Your task to perform on an android device: read, delete, or share a saved page in the chrome app Image 0: 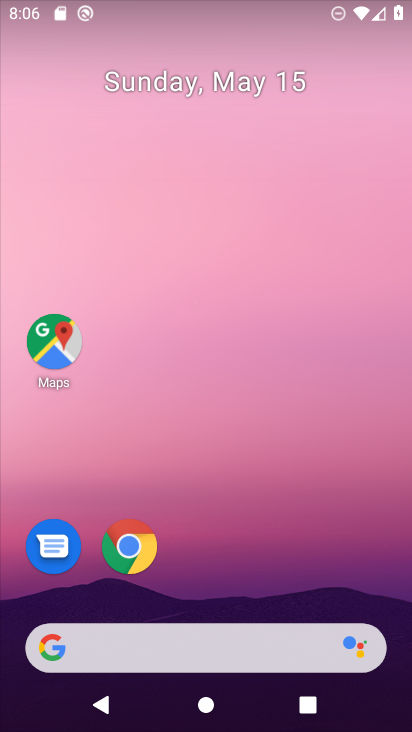
Step 0: click (133, 529)
Your task to perform on an android device: read, delete, or share a saved page in the chrome app Image 1: 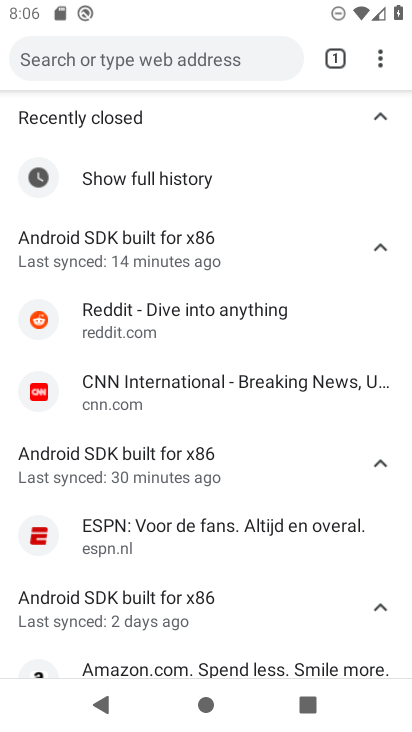
Step 1: click (381, 60)
Your task to perform on an android device: read, delete, or share a saved page in the chrome app Image 2: 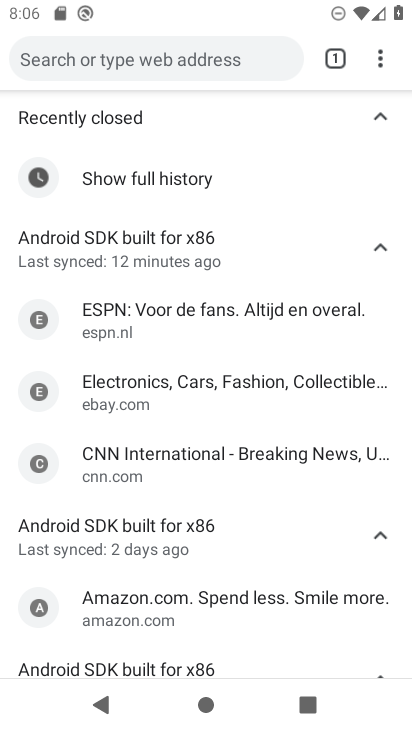
Step 2: click (381, 61)
Your task to perform on an android device: read, delete, or share a saved page in the chrome app Image 3: 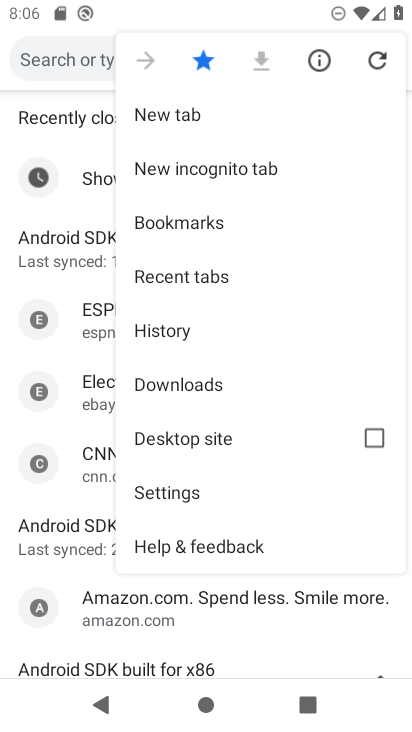
Step 3: click (220, 381)
Your task to perform on an android device: read, delete, or share a saved page in the chrome app Image 4: 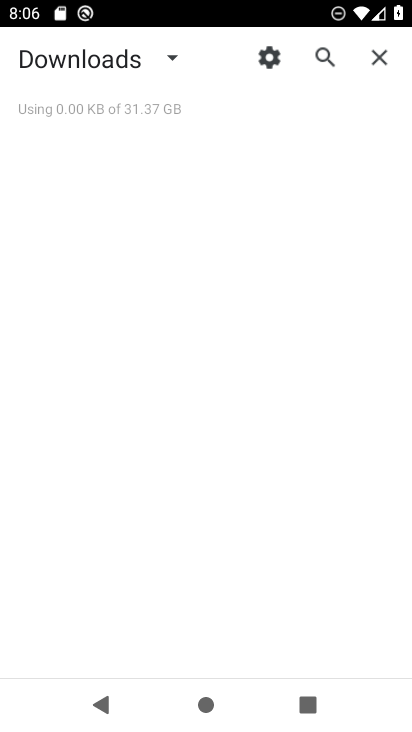
Step 4: task complete